Your task to perform on an android device: turn smart compose on in the gmail app Image 0: 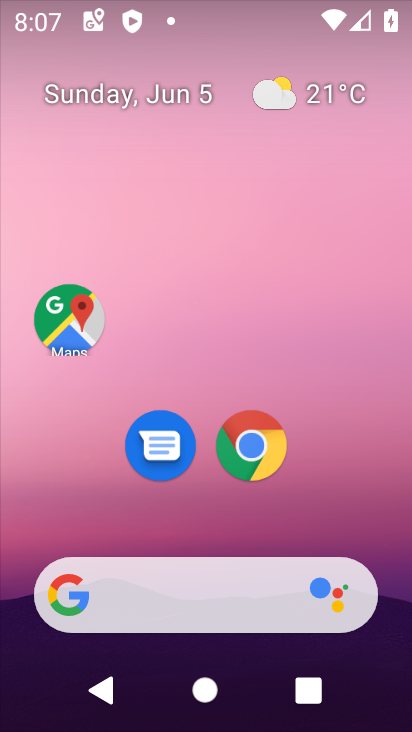
Step 0: drag from (346, 514) to (297, 124)
Your task to perform on an android device: turn smart compose on in the gmail app Image 1: 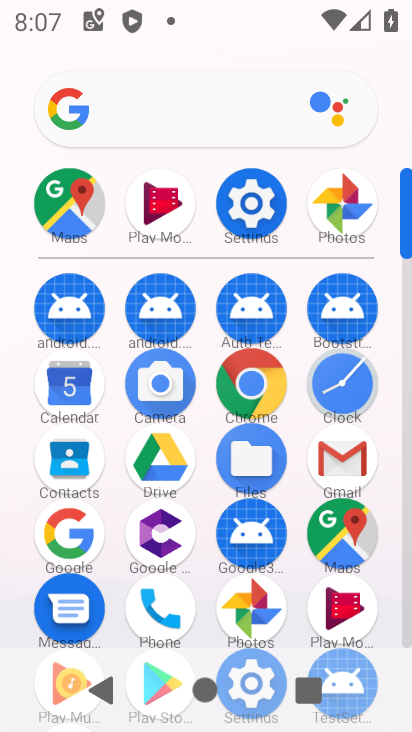
Step 1: click (324, 448)
Your task to perform on an android device: turn smart compose on in the gmail app Image 2: 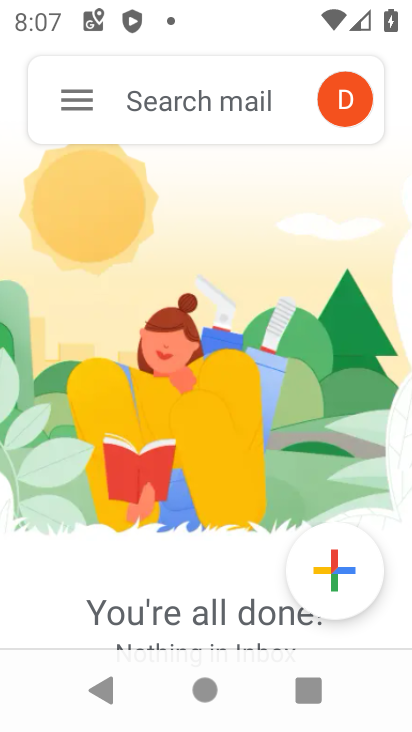
Step 2: click (73, 104)
Your task to perform on an android device: turn smart compose on in the gmail app Image 3: 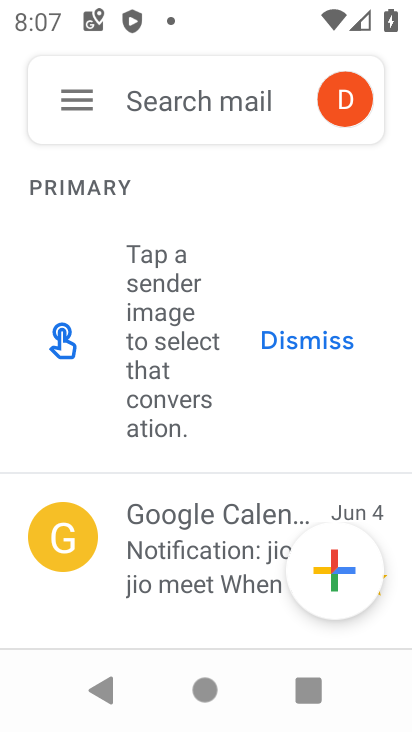
Step 3: click (83, 102)
Your task to perform on an android device: turn smart compose on in the gmail app Image 4: 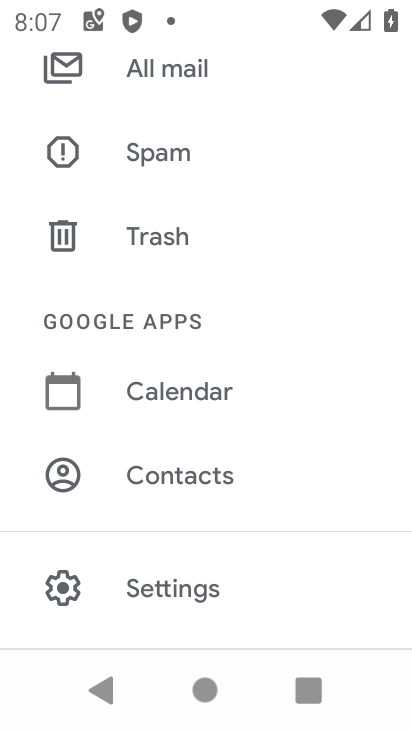
Step 4: click (187, 596)
Your task to perform on an android device: turn smart compose on in the gmail app Image 5: 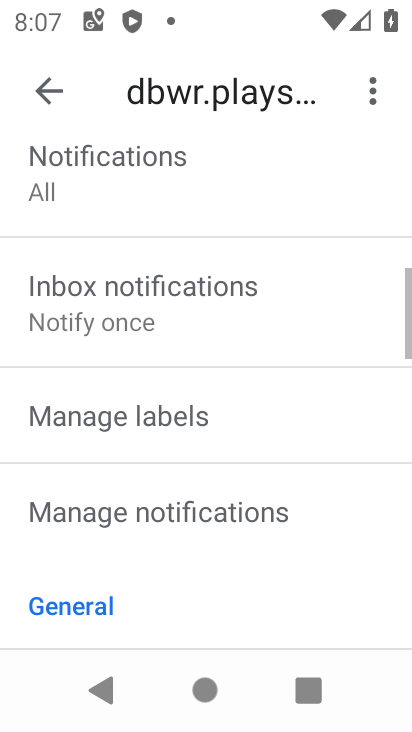
Step 5: task complete